Your task to perform on an android device: Open Yahoo.com Image 0: 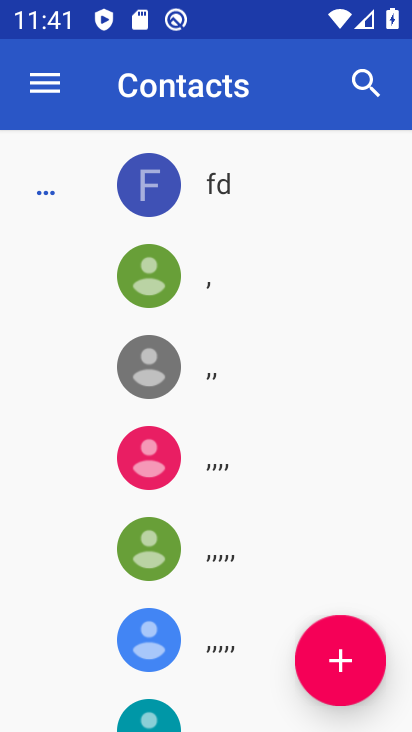
Step 0: press home button
Your task to perform on an android device: Open Yahoo.com Image 1: 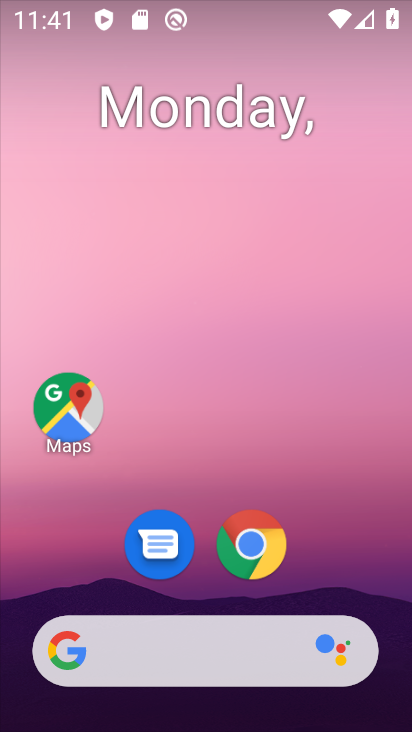
Step 1: click (264, 556)
Your task to perform on an android device: Open Yahoo.com Image 2: 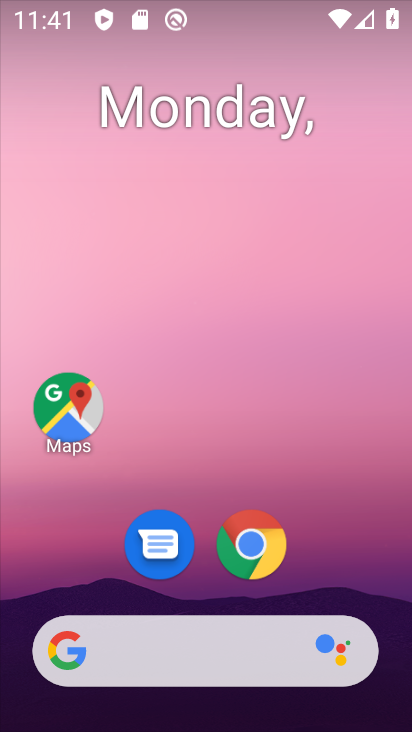
Step 2: click (270, 555)
Your task to perform on an android device: Open Yahoo.com Image 3: 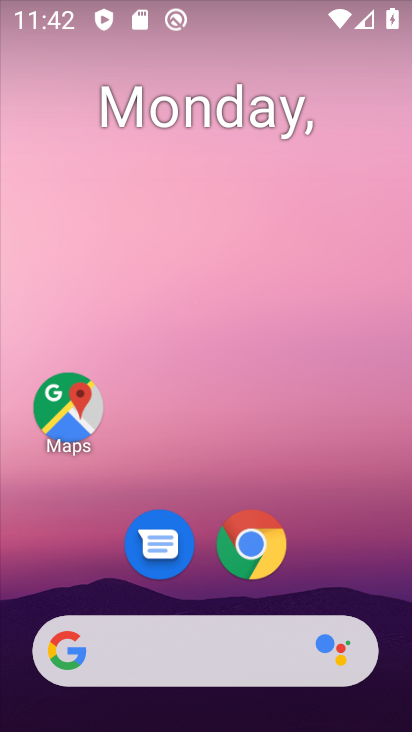
Step 3: click (270, 555)
Your task to perform on an android device: Open Yahoo.com Image 4: 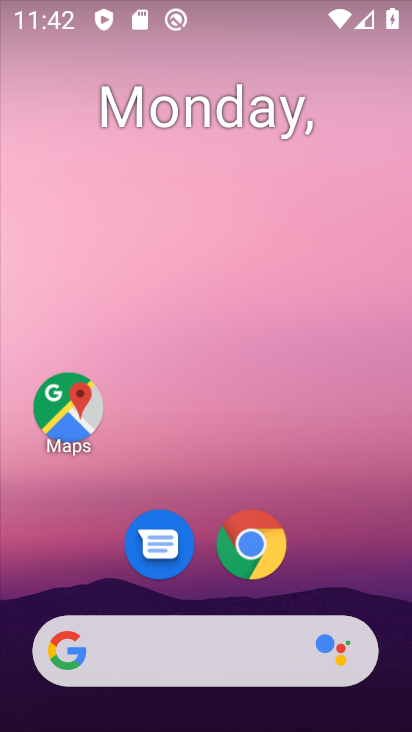
Step 4: click (271, 555)
Your task to perform on an android device: Open Yahoo.com Image 5: 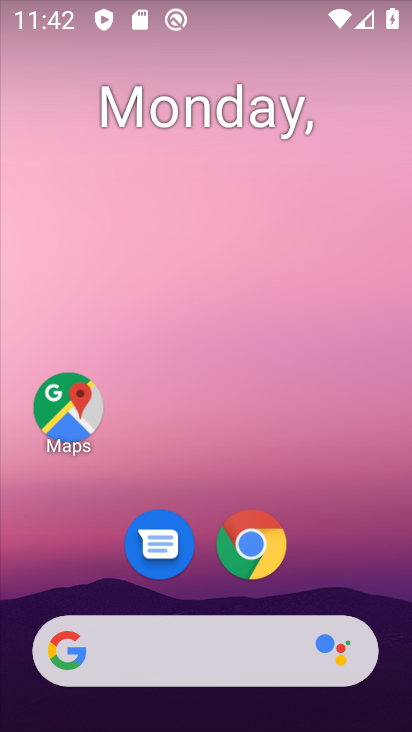
Step 5: click (260, 546)
Your task to perform on an android device: Open Yahoo.com Image 6: 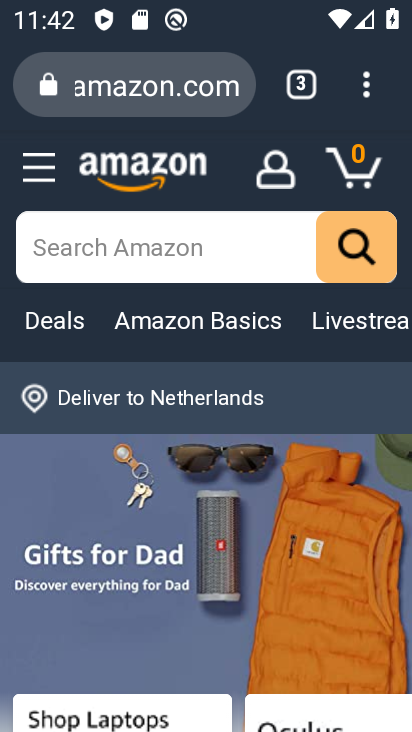
Step 6: click (308, 82)
Your task to perform on an android device: Open Yahoo.com Image 7: 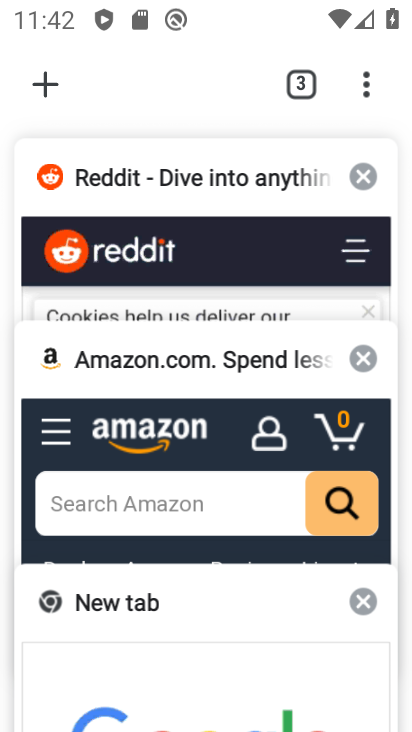
Step 7: click (53, 82)
Your task to perform on an android device: Open Yahoo.com Image 8: 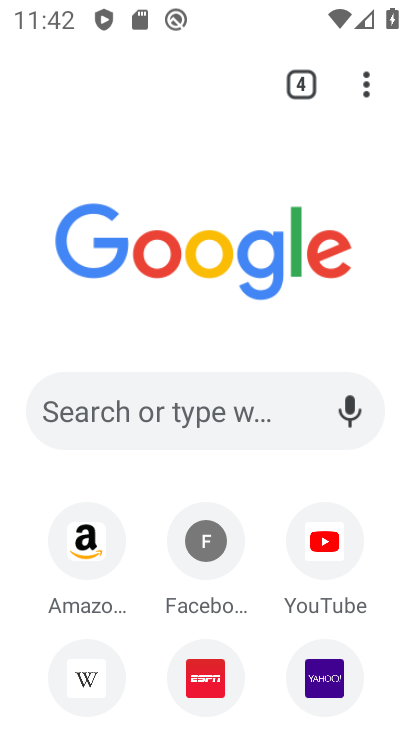
Step 8: drag from (274, 677) to (297, 397)
Your task to perform on an android device: Open Yahoo.com Image 9: 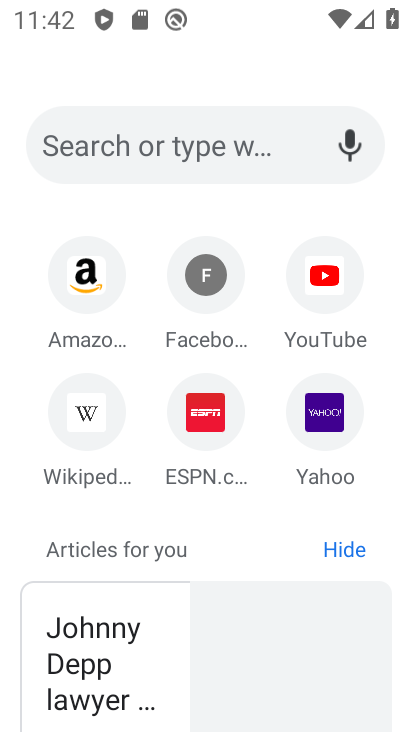
Step 9: click (341, 445)
Your task to perform on an android device: Open Yahoo.com Image 10: 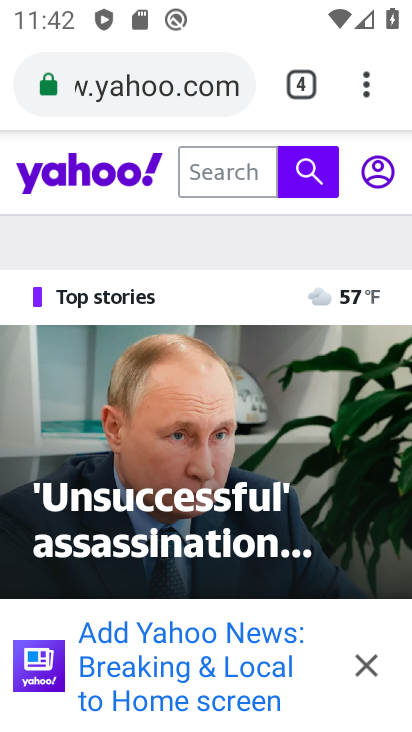
Step 10: task complete